Your task to perform on an android device: turn off priority inbox in the gmail app Image 0: 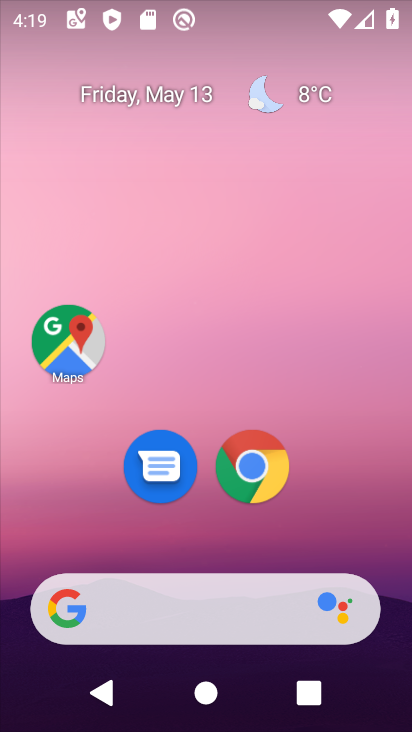
Step 0: drag from (388, 587) to (310, 98)
Your task to perform on an android device: turn off priority inbox in the gmail app Image 1: 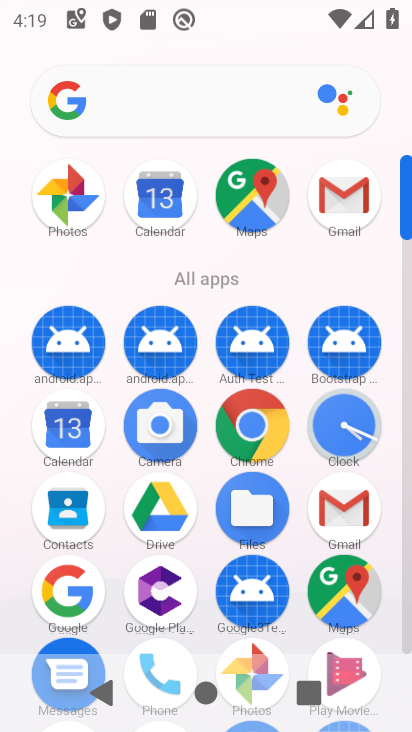
Step 1: click (403, 641)
Your task to perform on an android device: turn off priority inbox in the gmail app Image 2: 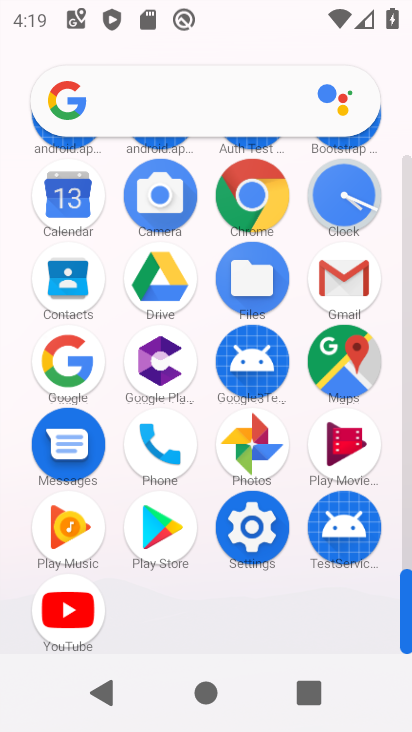
Step 2: click (336, 271)
Your task to perform on an android device: turn off priority inbox in the gmail app Image 3: 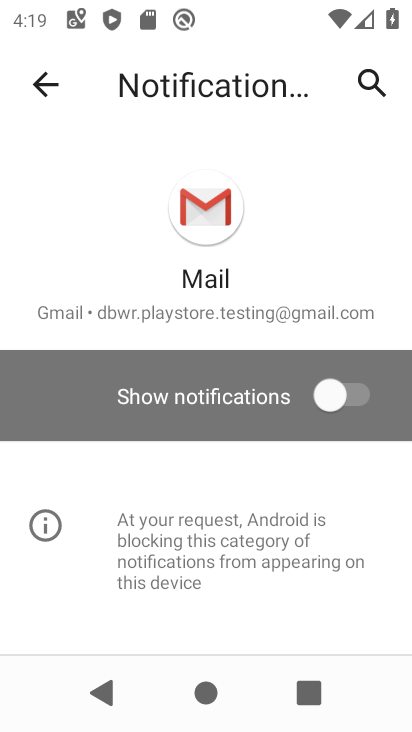
Step 3: press back button
Your task to perform on an android device: turn off priority inbox in the gmail app Image 4: 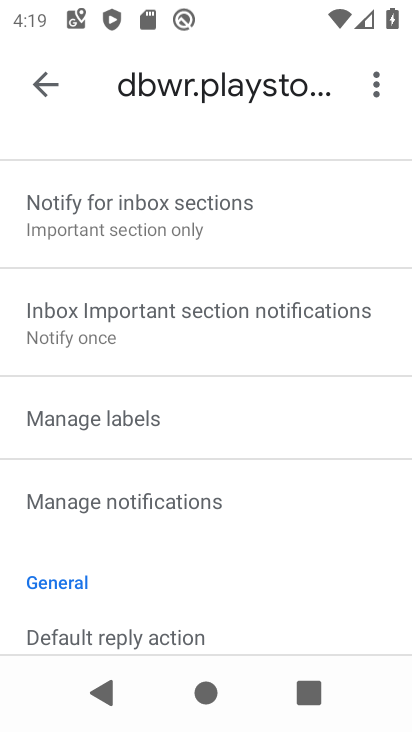
Step 4: drag from (215, 233) to (231, 505)
Your task to perform on an android device: turn off priority inbox in the gmail app Image 5: 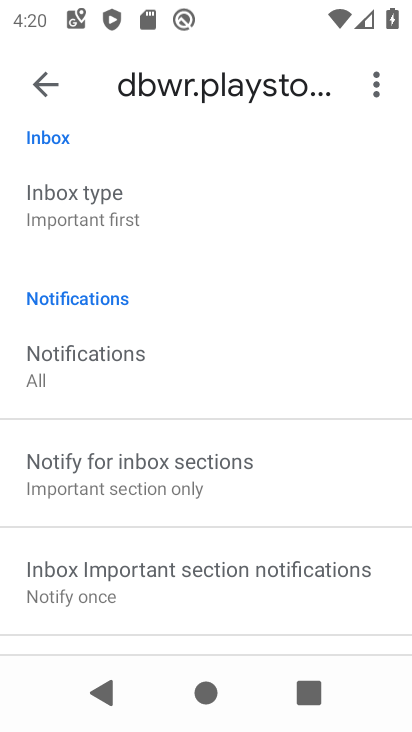
Step 5: click (65, 204)
Your task to perform on an android device: turn off priority inbox in the gmail app Image 6: 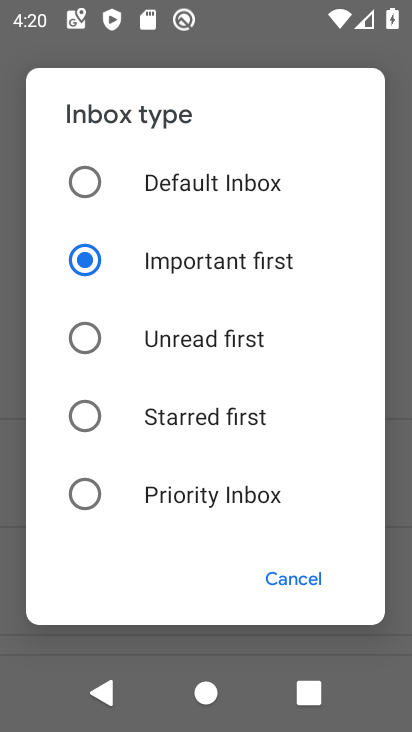
Step 6: task complete